Your task to perform on an android device: visit the assistant section in the google photos Image 0: 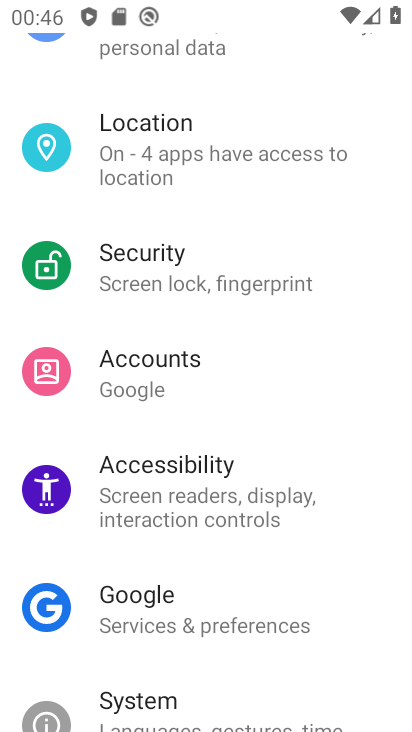
Step 0: press home button
Your task to perform on an android device: visit the assistant section in the google photos Image 1: 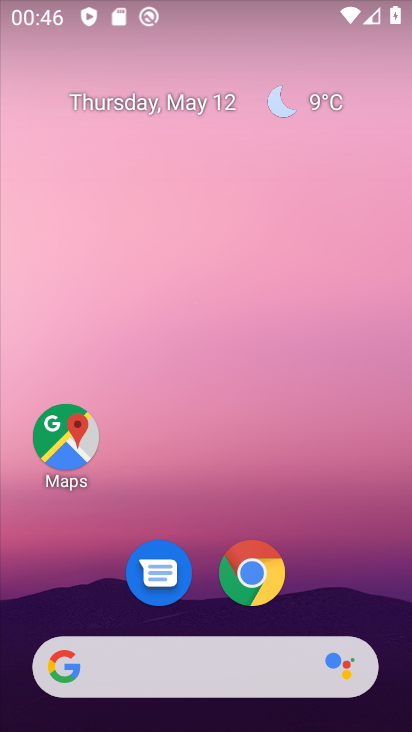
Step 1: drag from (210, 603) to (237, 12)
Your task to perform on an android device: visit the assistant section in the google photos Image 2: 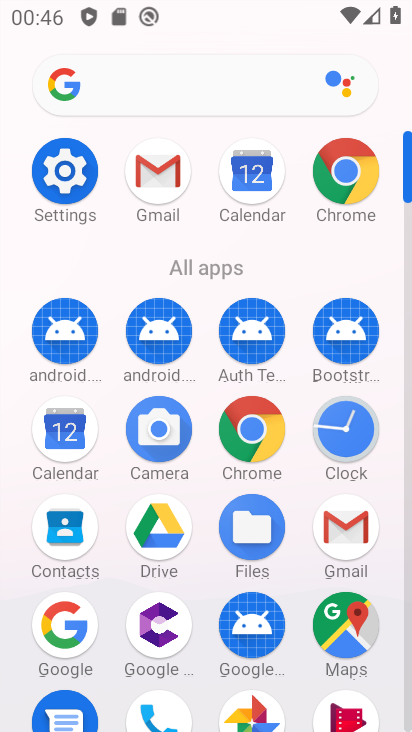
Step 2: click (245, 711)
Your task to perform on an android device: visit the assistant section in the google photos Image 3: 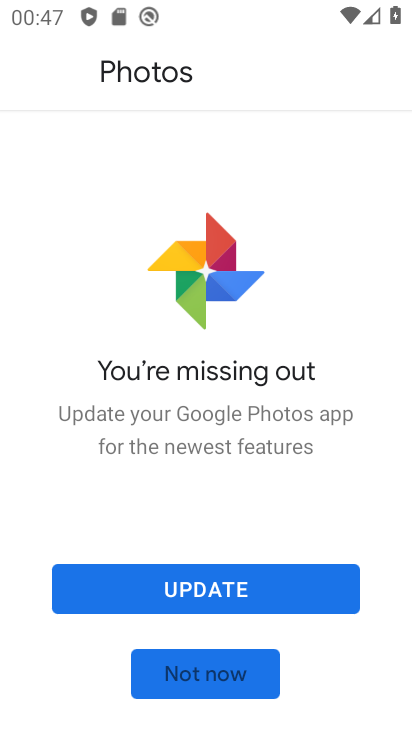
Step 3: click (221, 647)
Your task to perform on an android device: visit the assistant section in the google photos Image 4: 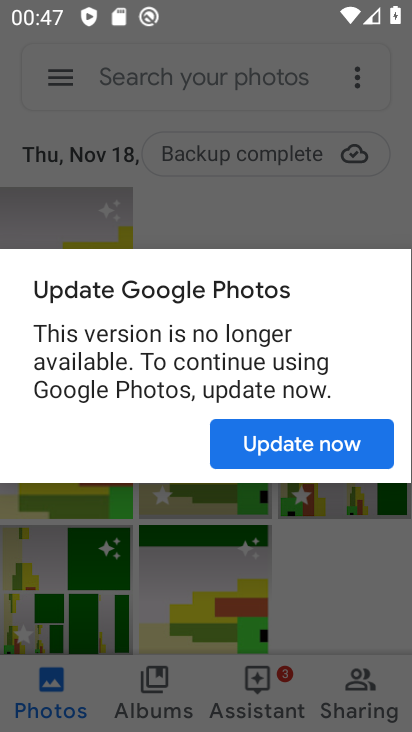
Step 4: click (299, 453)
Your task to perform on an android device: visit the assistant section in the google photos Image 5: 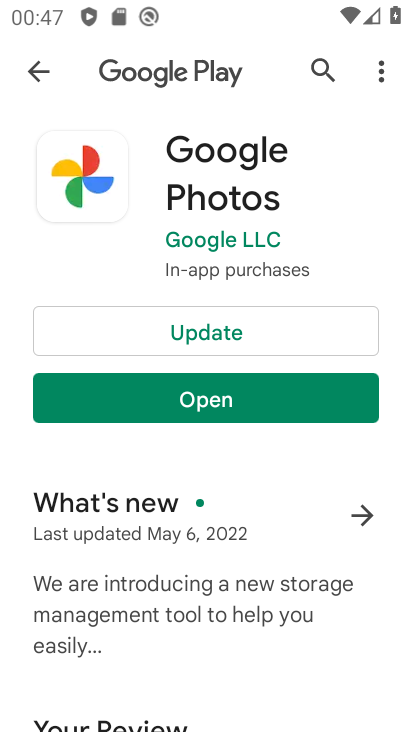
Step 5: click (248, 389)
Your task to perform on an android device: visit the assistant section in the google photos Image 6: 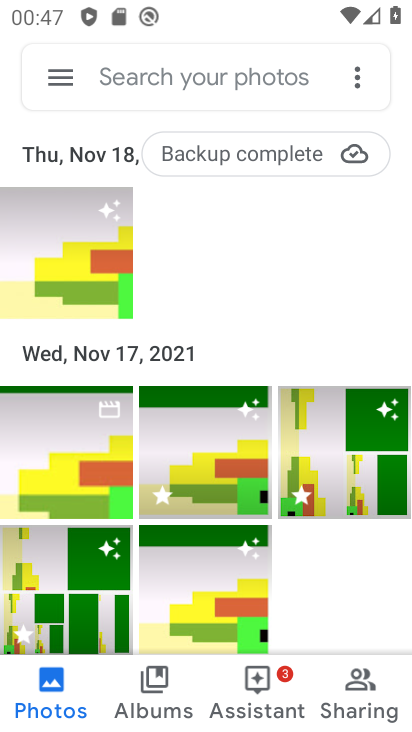
Step 6: click (256, 685)
Your task to perform on an android device: visit the assistant section in the google photos Image 7: 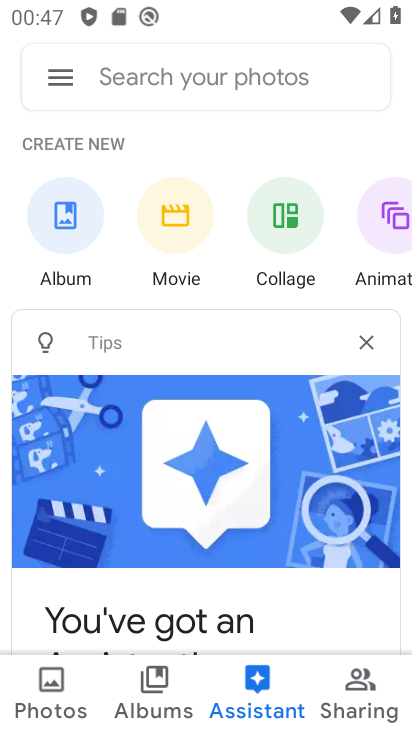
Step 7: task complete